Your task to perform on an android device: Go to accessibility settings Image 0: 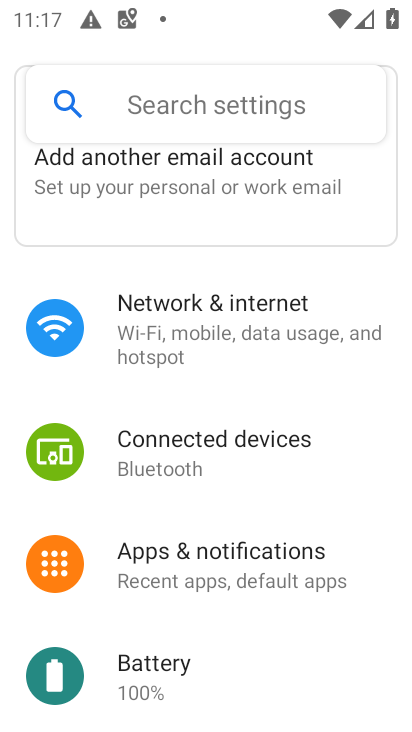
Step 0: press home button
Your task to perform on an android device: Go to accessibility settings Image 1: 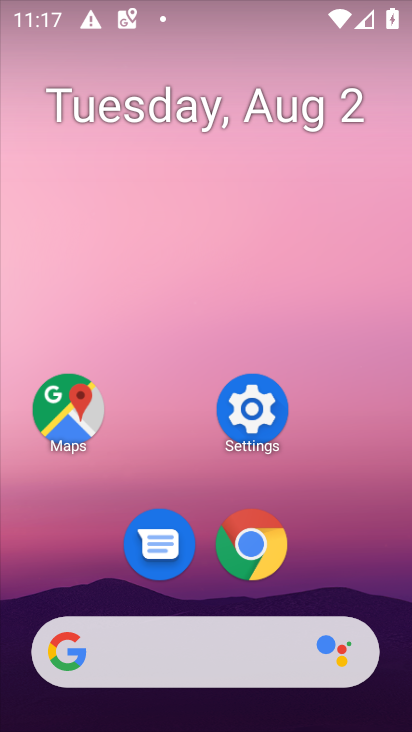
Step 1: click (260, 409)
Your task to perform on an android device: Go to accessibility settings Image 2: 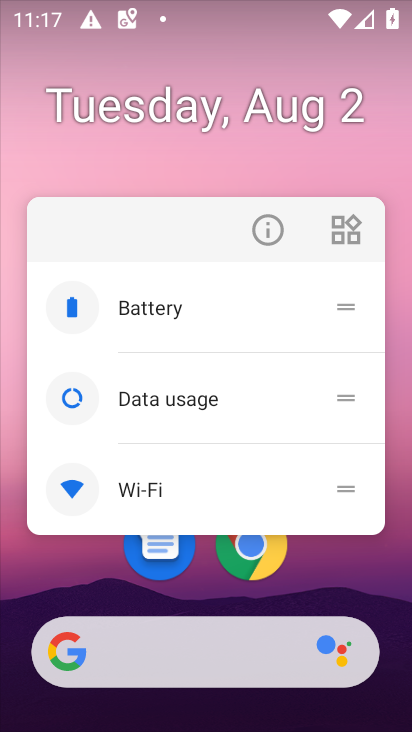
Step 2: click (260, 411)
Your task to perform on an android device: Go to accessibility settings Image 3: 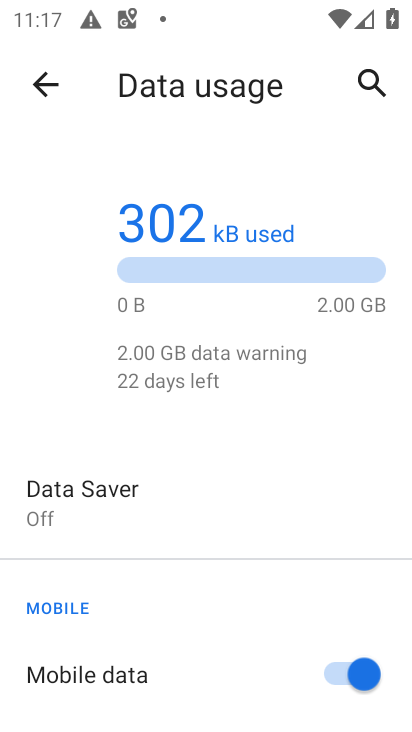
Step 3: press back button
Your task to perform on an android device: Go to accessibility settings Image 4: 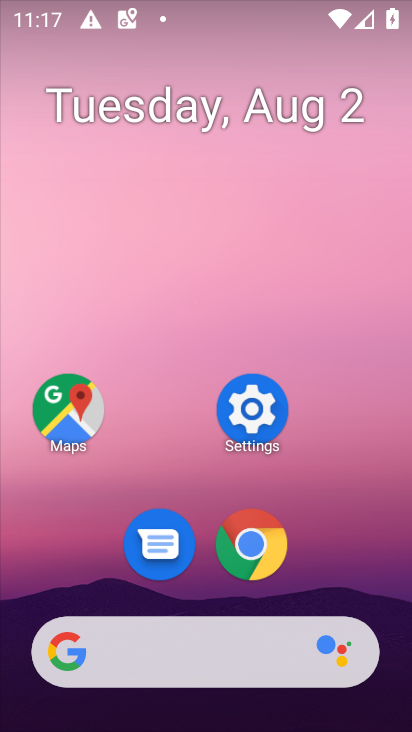
Step 4: click (256, 403)
Your task to perform on an android device: Go to accessibility settings Image 5: 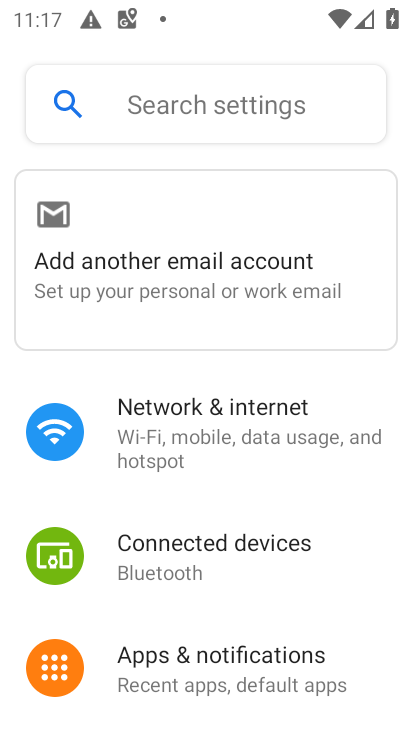
Step 5: drag from (240, 677) to (324, 86)
Your task to perform on an android device: Go to accessibility settings Image 6: 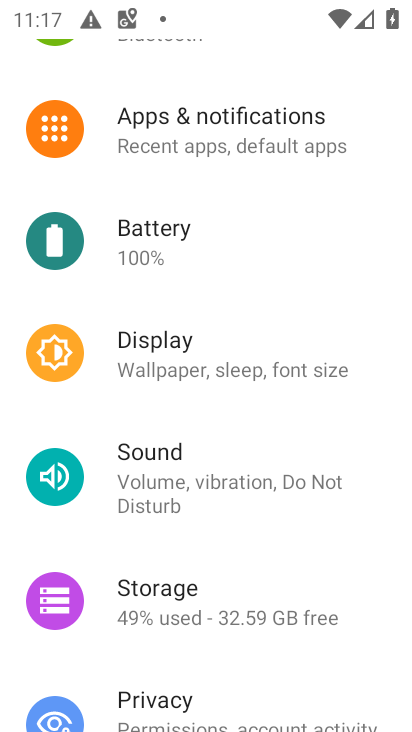
Step 6: drag from (237, 660) to (299, 147)
Your task to perform on an android device: Go to accessibility settings Image 7: 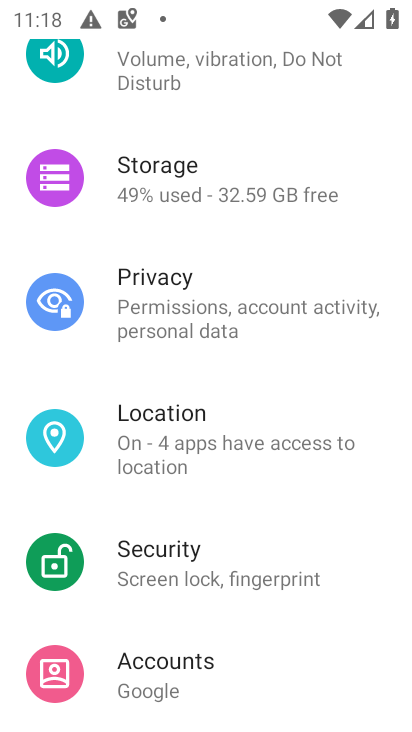
Step 7: drag from (233, 632) to (311, 165)
Your task to perform on an android device: Go to accessibility settings Image 8: 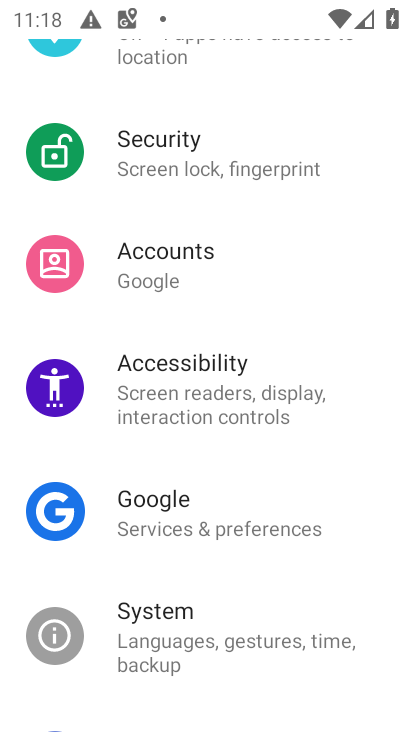
Step 8: click (204, 382)
Your task to perform on an android device: Go to accessibility settings Image 9: 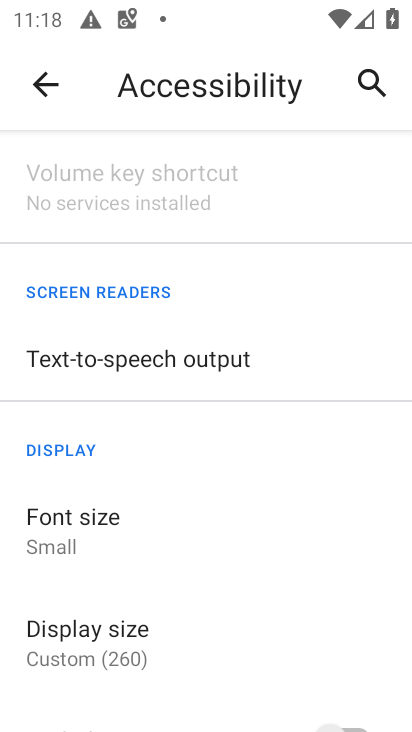
Step 9: task complete